Your task to perform on an android device: snooze an email in the gmail app Image 0: 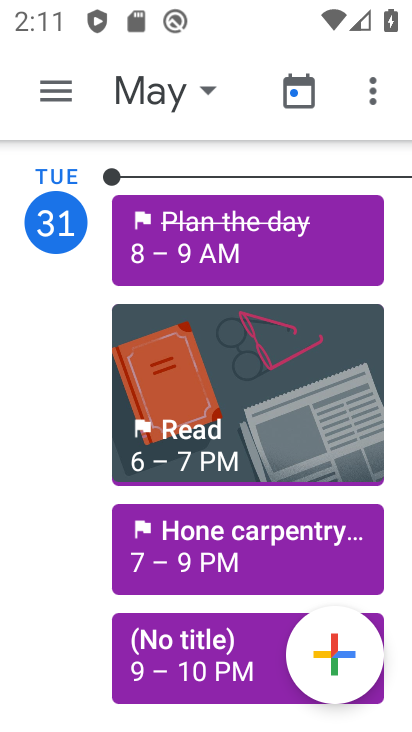
Step 0: press home button
Your task to perform on an android device: snooze an email in the gmail app Image 1: 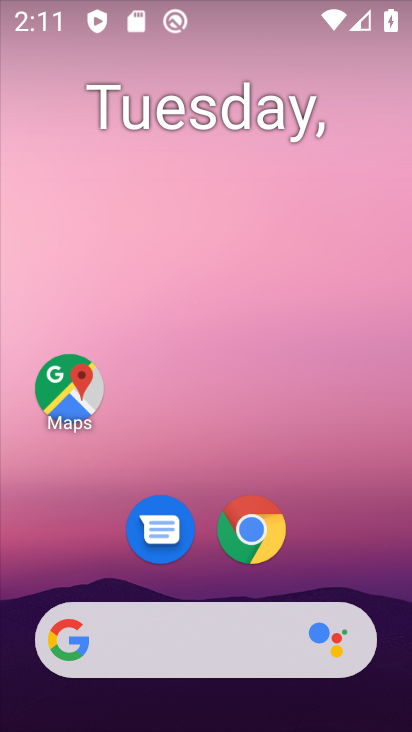
Step 1: drag from (324, 559) to (333, 23)
Your task to perform on an android device: snooze an email in the gmail app Image 2: 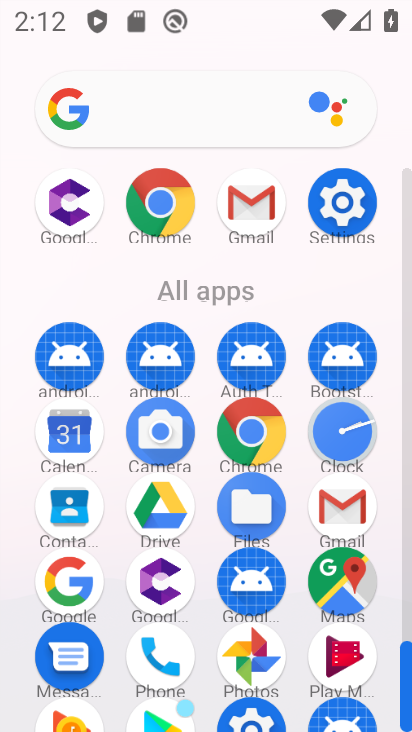
Step 2: click (240, 205)
Your task to perform on an android device: snooze an email in the gmail app Image 3: 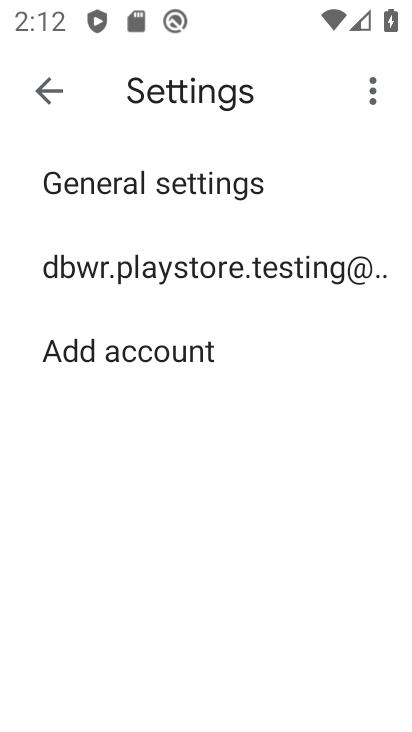
Step 3: click (46, 82)
Your task to perform on an android device: snooze an email in the gmail app Image 4: 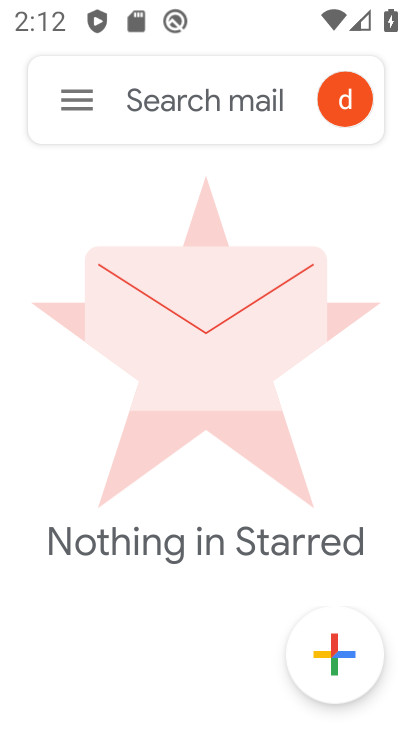
Step 4: click (68, 109)
Your task to perform on an android device: snooze an email in the gmail app Image 5: 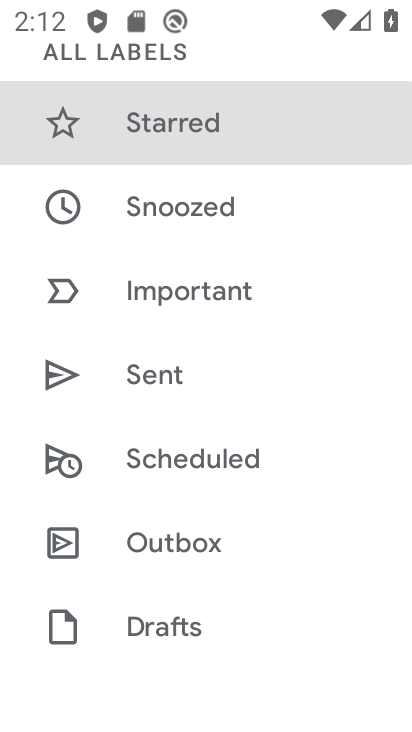
Step 5: drag from (169, 624) to (210, 175)
Your task to perform on an android device: snooze an email in the gmail app Image 6: 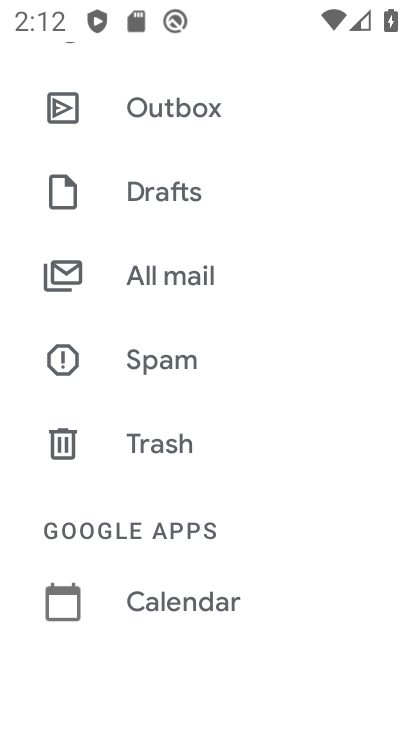
Step 6: click (146, 267)
Your task to perform on an android device: snooze an email in the gmail app Image 7: 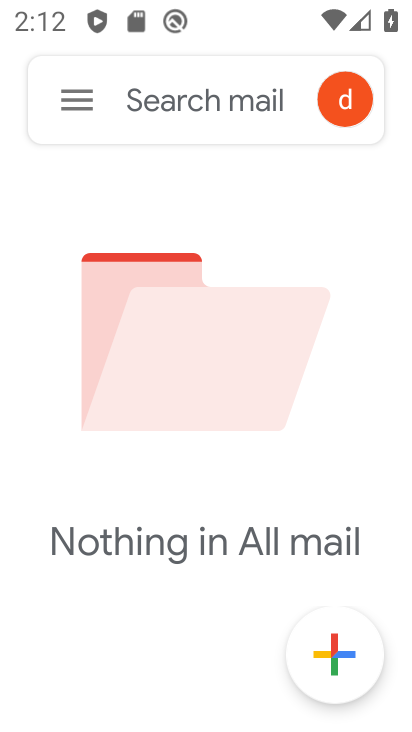
Step 7: task complete